Your task to perform on an android device: Open calendar and show me the first week of next month Image 0: 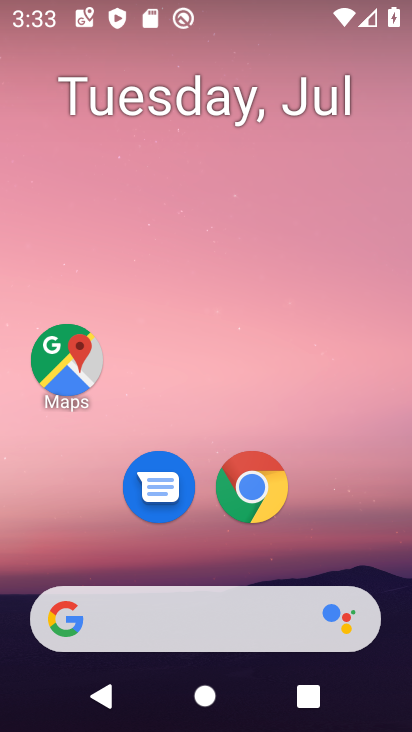
Step 0: drag from (180, 481) to (227, 23)
Your task to perform on an android device: Open calendar and show me the first week of next month Image 1: 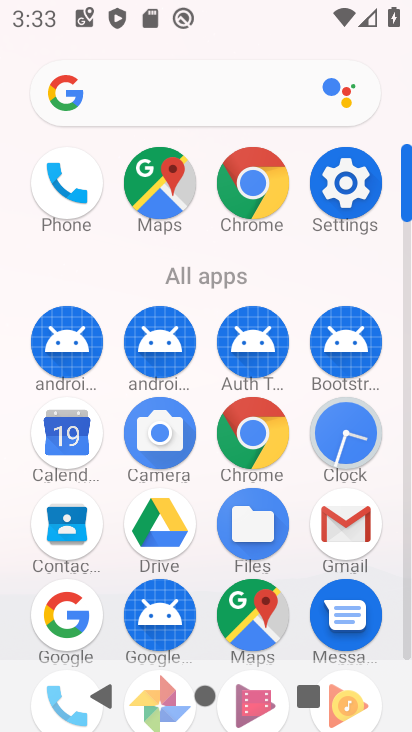
Step 1: click (55, 426)
Your task to perform on an android device: Open calendar and show me the first week of next month Image 2: 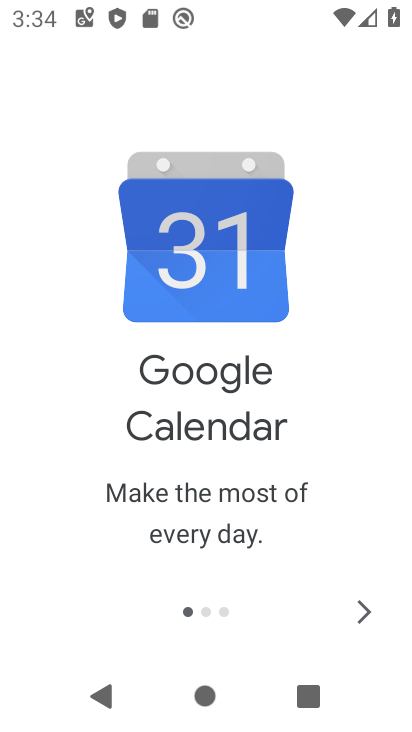
Step 2: click (360, 602)
Your task to perform on an android device: Open calendar and show me the first week of next month Image 3: 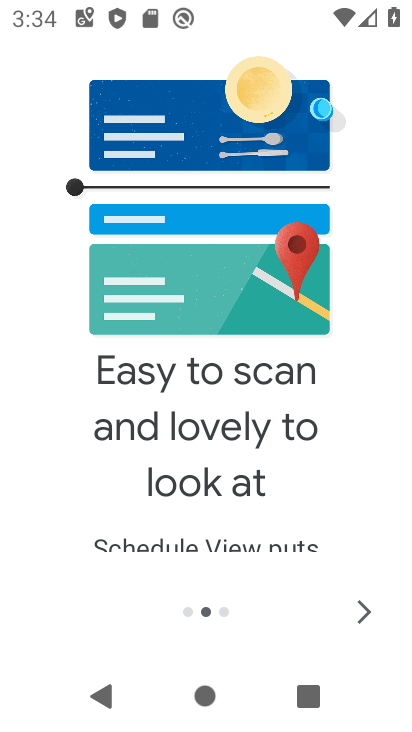
Step 3: click (355, 605)
Your task to perform on an android device: Open calendar and show me the first week of next month Image 4: 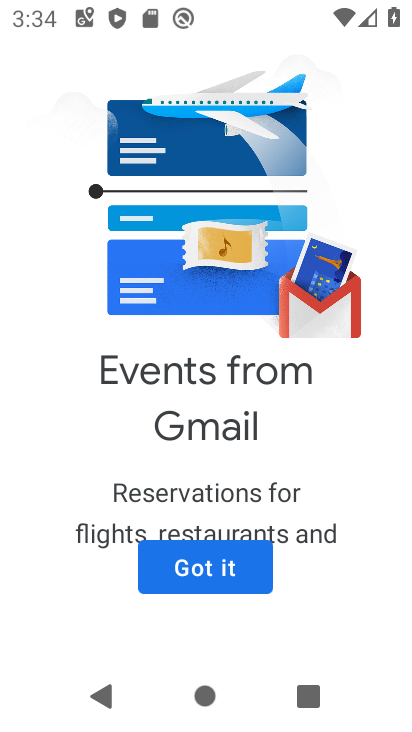
Step 4: click (211, 561)
Your task to perform on an android device: Open calendar and show me the first week of next month Image 5: 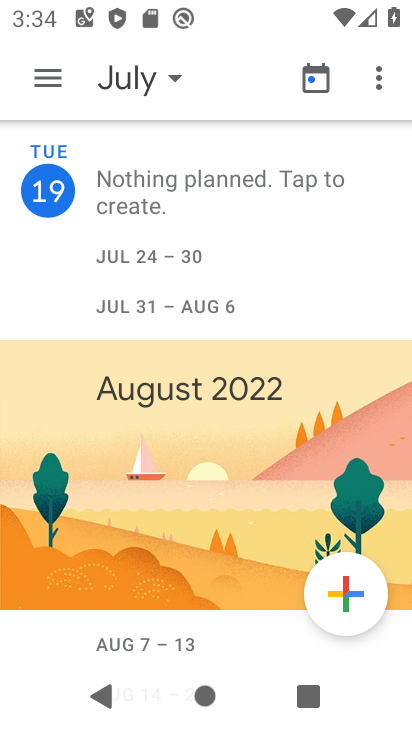
Step 5: click (146, 89)
Your task to perform on an android device: Open calendar and show me the first week of next month Image 6: 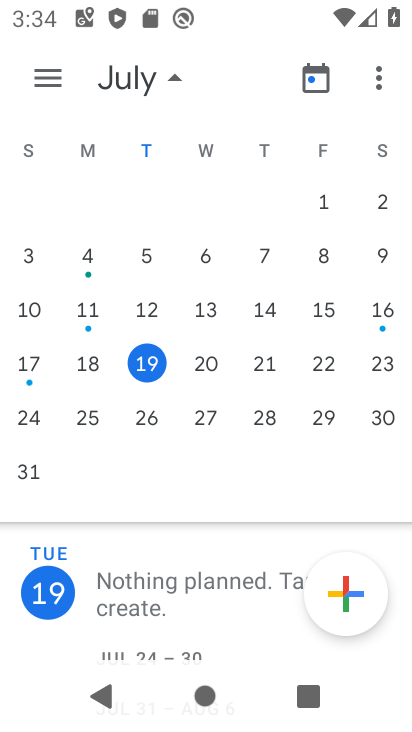
Step 6: drag from (385, 350) to (125, 388)
Your task to perform on an android device: Open calendar and show me the first week of next month Image 7: 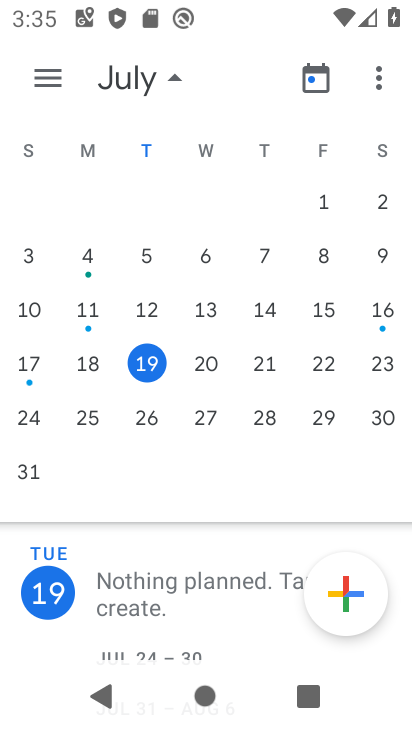
Step 7: drag from (307, 308) to (25, 270)
Your task to perform on an android device: Open calendar and show me the first week of next month Image 8: 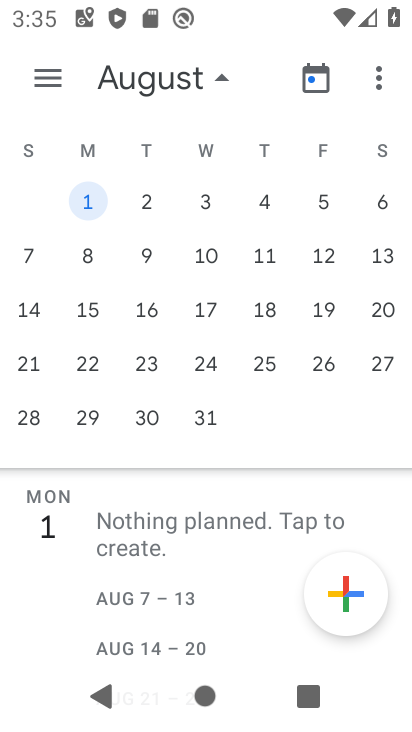
Step 8: click (83, 211)
Your task to perform on an android device: Open calendar and show me the first week of next month Image 9: 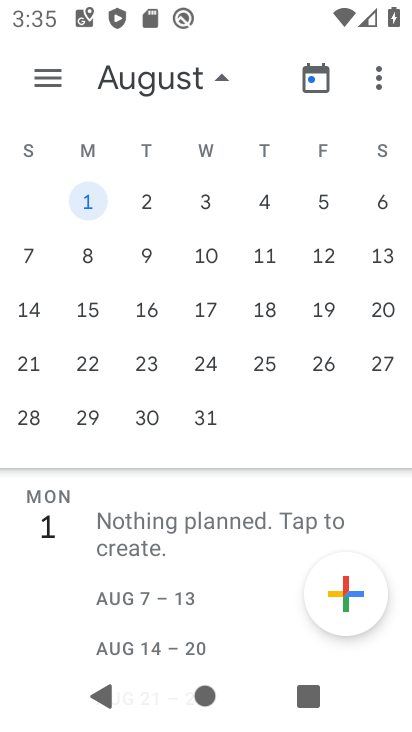
Step 9: task complete